Your task to perform on an android device: empty trash in google photos Image 0: 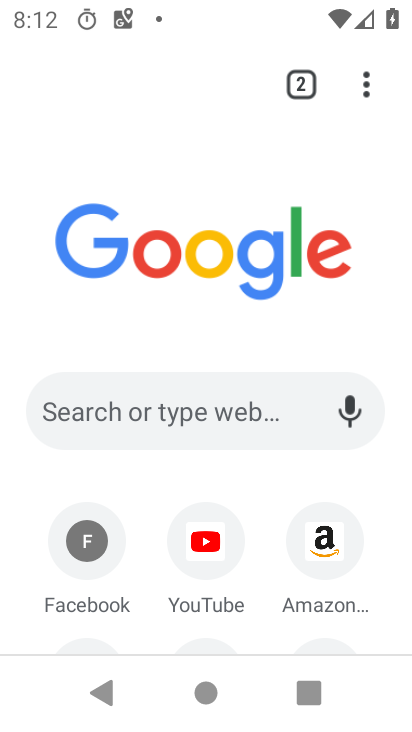
Step 0: press home button
Your task to perform on an android device: empty trash in google photos Image 1: 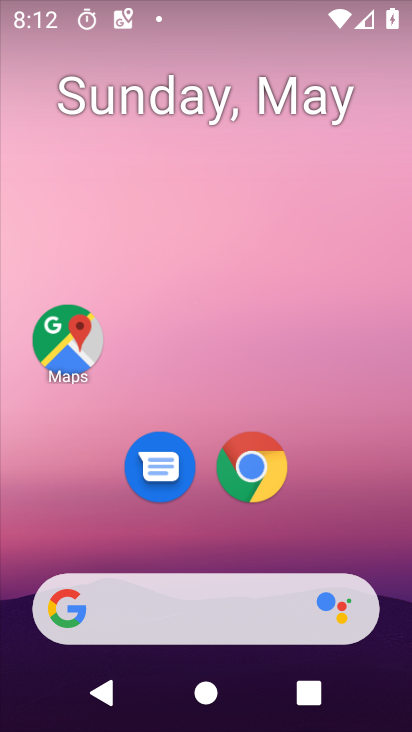
Step 1: drag from (15, 501) to (161, 35)
Your task to perform on an android device: empty trash in google photos Image 2: 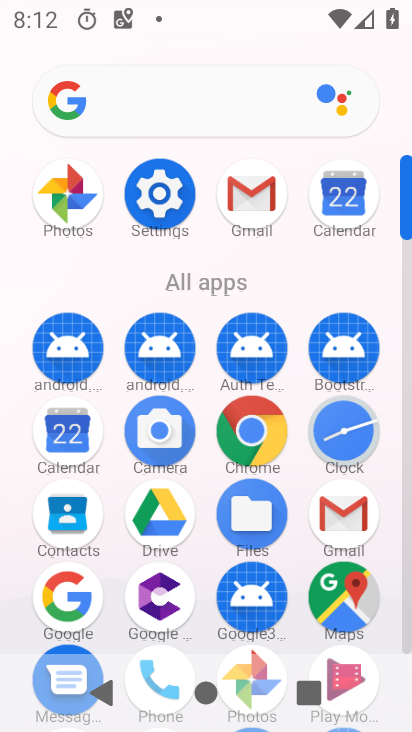
Step 2: click (247, 652)
Your task to perform on an android device: empty trash in google photos Image 3: 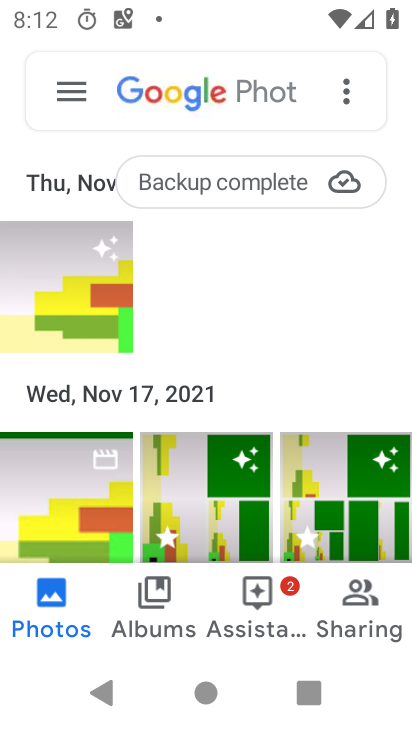
Step 3: click (76, 93)
Your task to perform on an android device: empty trash in google photos Image 4: 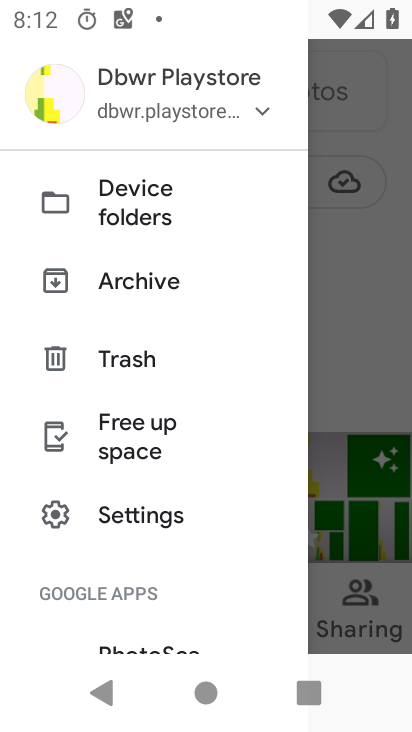
Step 4: click (165, 348)
Your task to perform on an android device: empty trash in google photos Image 5: 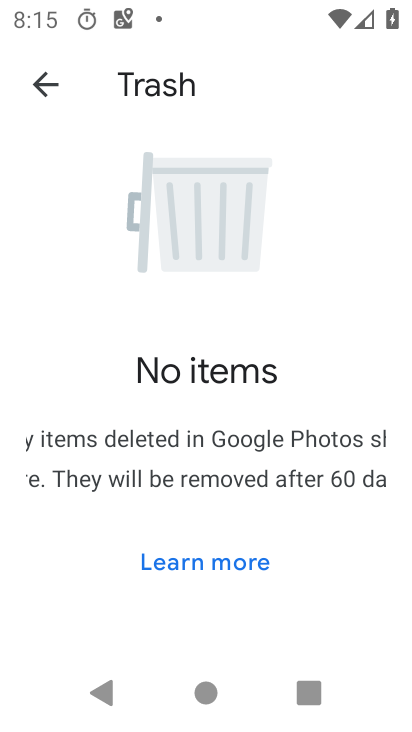
Step 5: task complete